Your task to perform on an android device: Open Amazon Image 0: 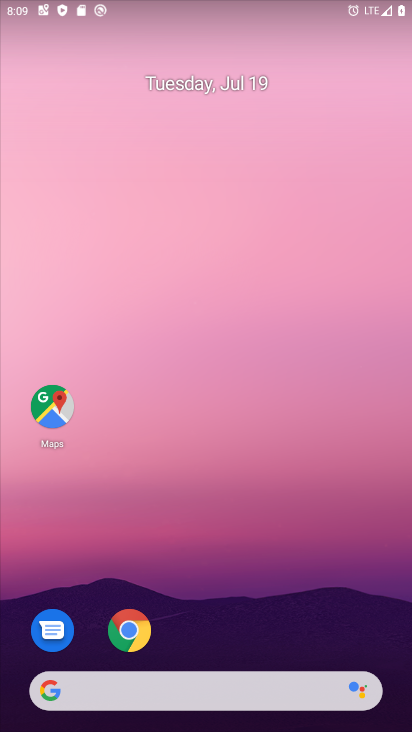
Step 0: drag from (228, 647) to (231, 142)
Your task to perform on an android device: Open Amazon Image 1: 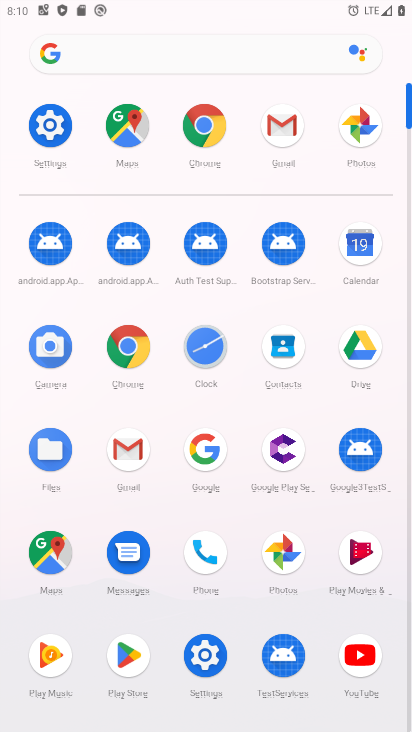
Step 1: click (208, 127)
Your task to perform on an android device: Open Amazon Image 2: 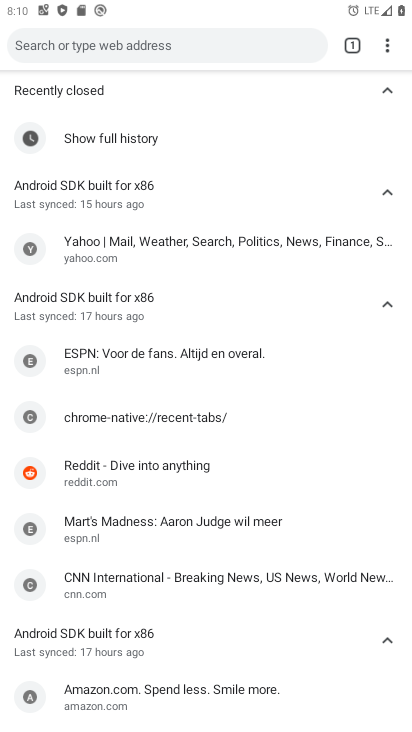
Step 2: click (248, 47)
Your task to perform on an android device: Open Amazon Image 3: 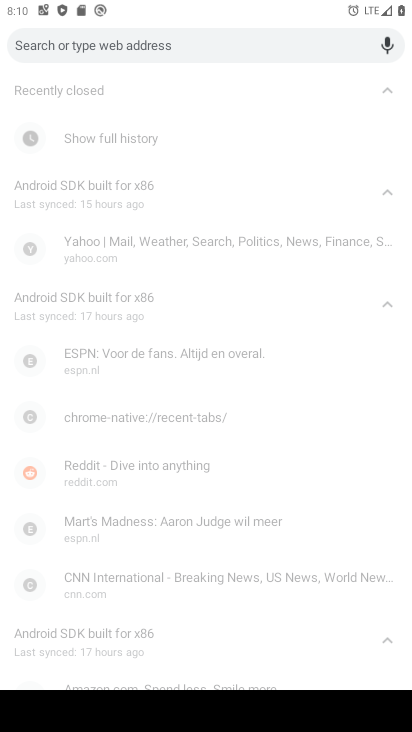
Step 3: type "amazon"
Your task to perform on an android device: Open Amazon Image 4: 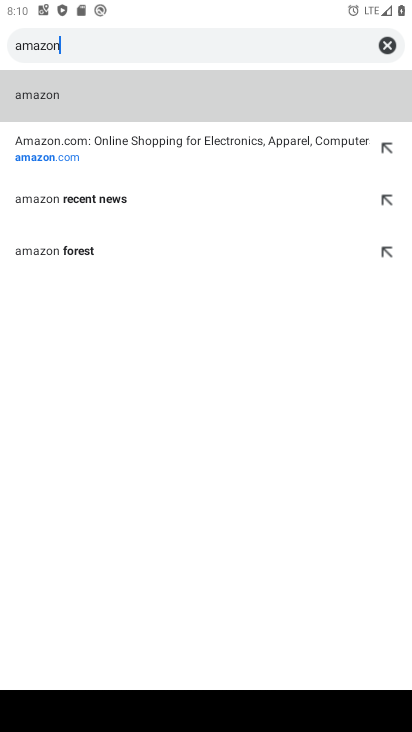
Step 4: click (51, 149)
Your task to perform on an android device: Open Amazon Image 5: 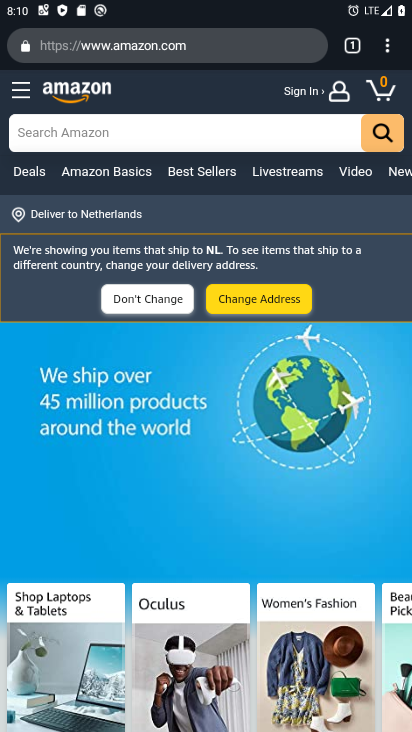
Step 5: task complete